Your task to perform on an android device: Search for Mexican restaurants on Maps Image 0: 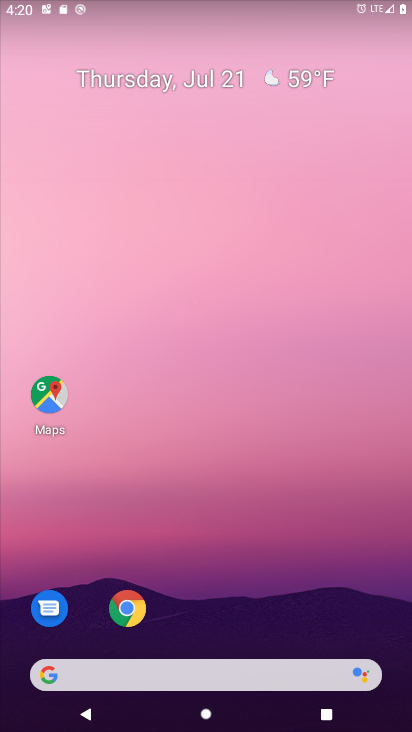
Step 0: drag from (325, 657) to (331, 117)
Your task to perform on an android device: Search for Mexican restaurants on Maps Image 1: 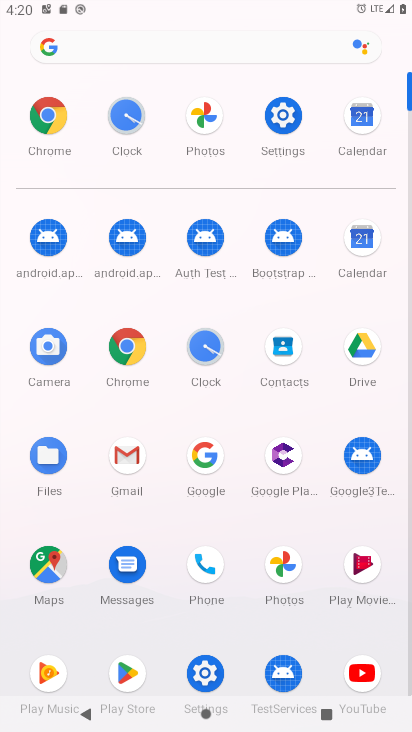
Step 1: click (38, 556)
Your task to perform on an android device: Search for Mexican restaurants on Maps Image 2: 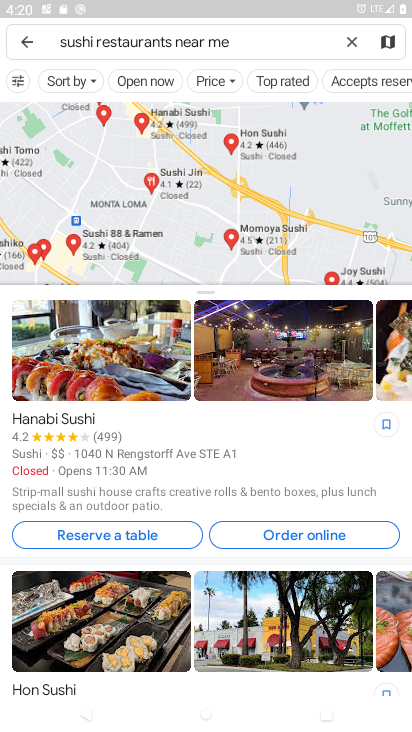
Step 2: click (354, 35)
Your task to perform on an android device: Search for Mexican restaurants on Maps Image 3: 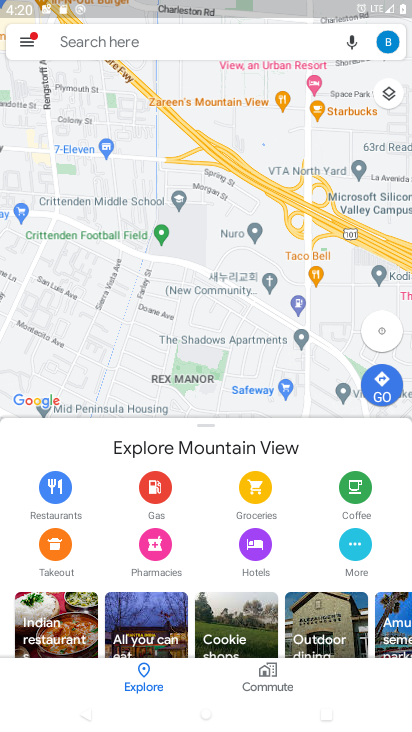
Step 3: type "mexican restaura"
Your task to perform on an android device: Search for Mexican restaurants on Maps Image 4: 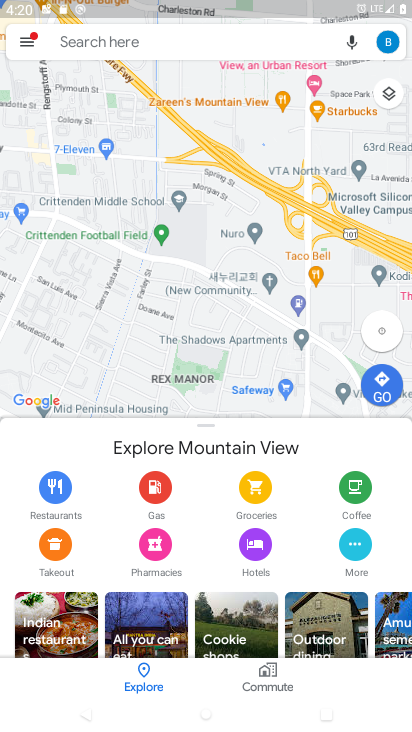
Step 4: click (94, 41)
Your task to perform on an android device: Search for Mexican restaurants on Maps Image 5: 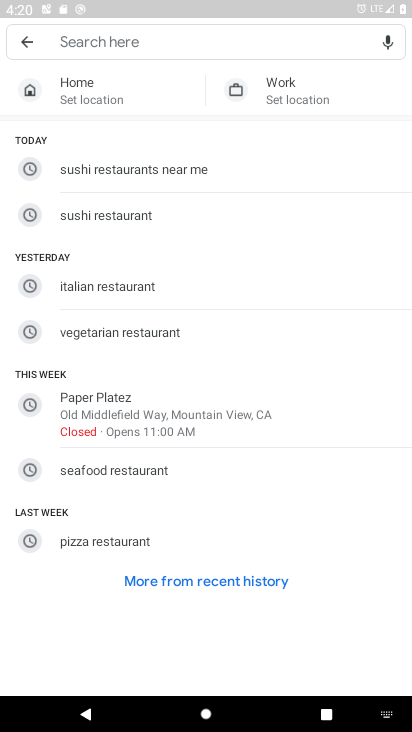
Step 5: type "mexican res"
Your task to perform on an android device: Search for Mexican restaurants on Maps Image 6: 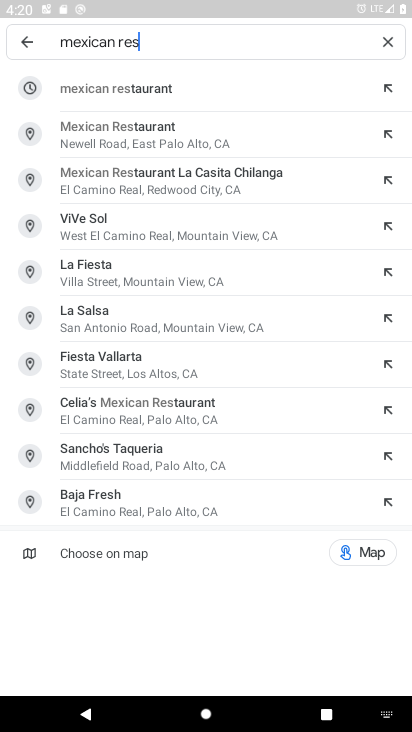
Step 6: click (179, 83)
Your task to perform on an android device: Search for Mexican restaurants on Maps Image 7: 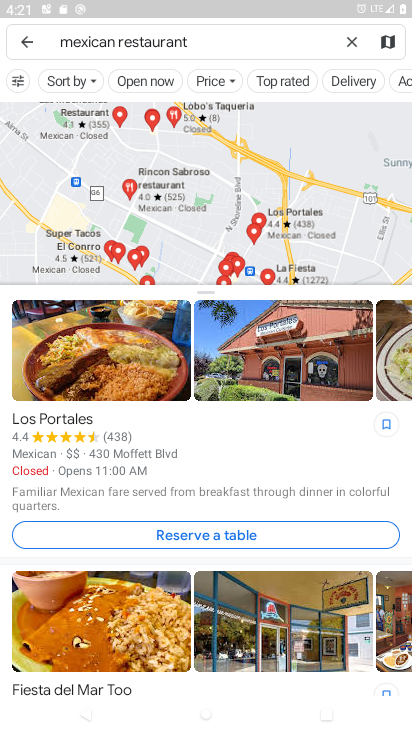
Step 7: task complete